Your task to perform on an android device: turn off javascript in the chrome app Image 0: 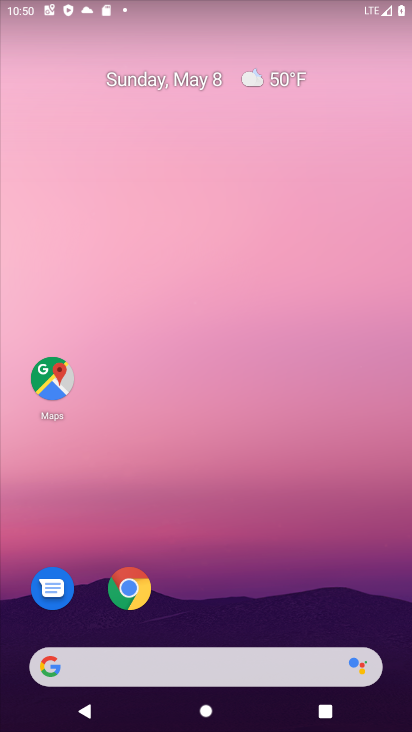
Step 0: drag from (271, 585) to (239, 79)
Your task to perform on an android device: turn off javascript in the chrome app Image 1: 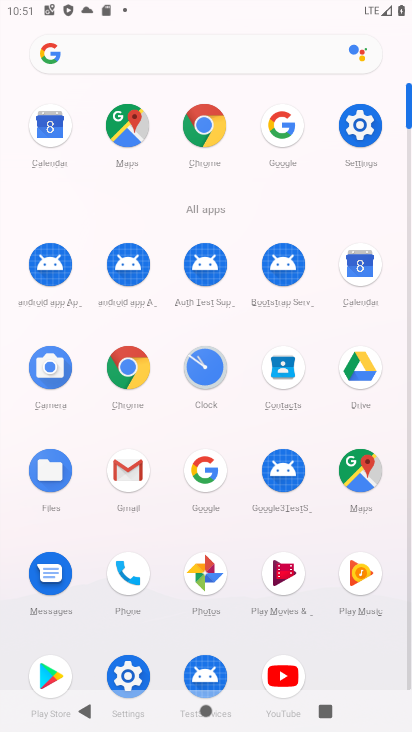
Step 1: click (209, 121)
Your task to perform on an android device: turn off javascript in the chrome app Image 2: 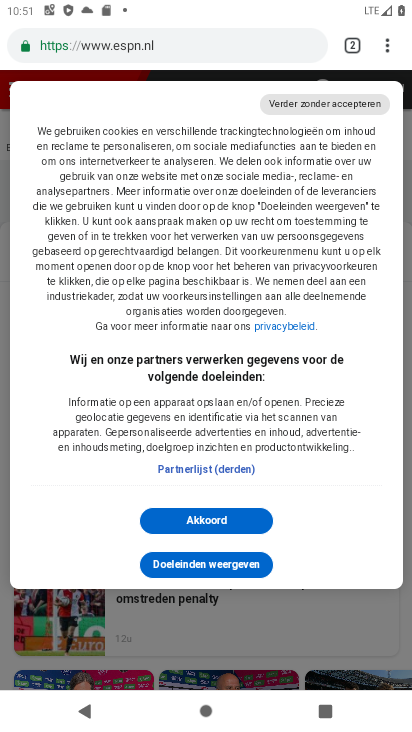
Step 2: click (389, 40)
Your task to perform on an android device: turn off javascript in the chrome app Image 3: 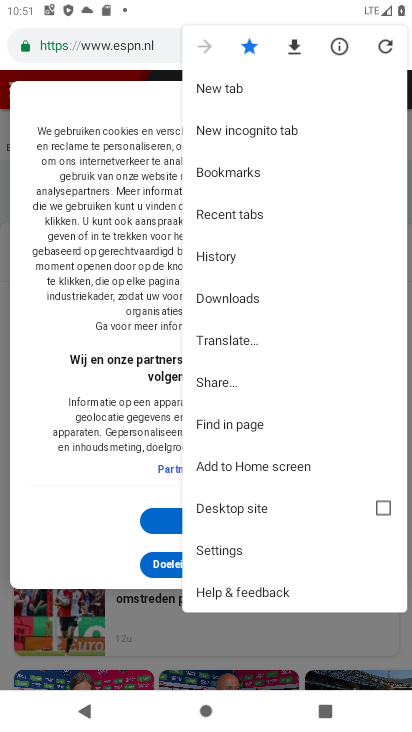
Step 3: click (236, 558)
Your task to perform on an android device: turn off javascript in the chrome app Image 4: 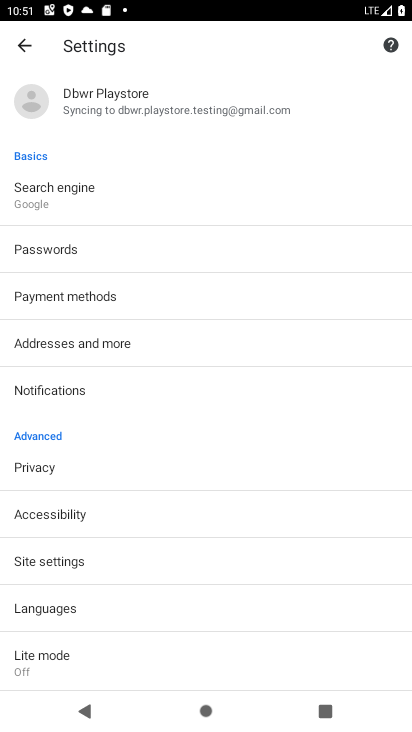
Step 4: click (85, 574)
Your task to perform on an android device: turn off javascript in the chrome app Image 5: 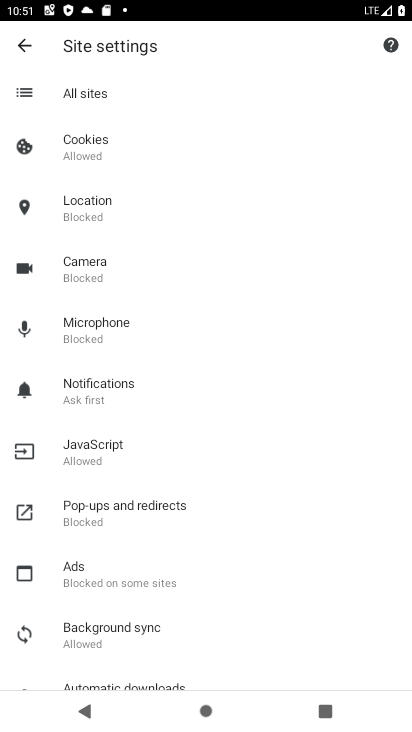
Step 5: click (135, 454)
Your task to perform on an android device: turn off javascript in the chrome app Image 6: 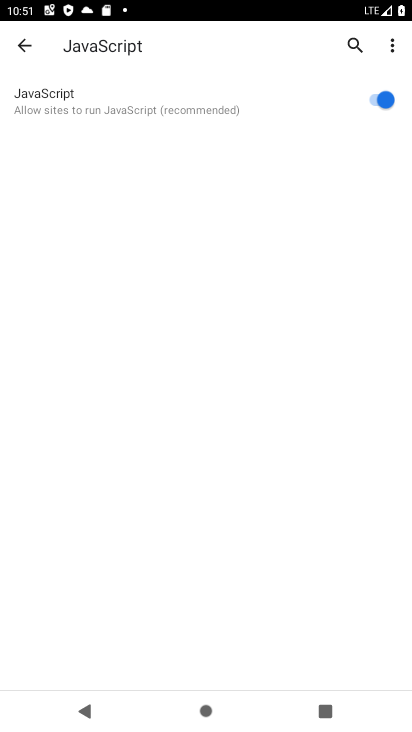
Step 6: click (385, 97)
Your task to perform on an android device: turn off javascript in the chrome app Image 7: 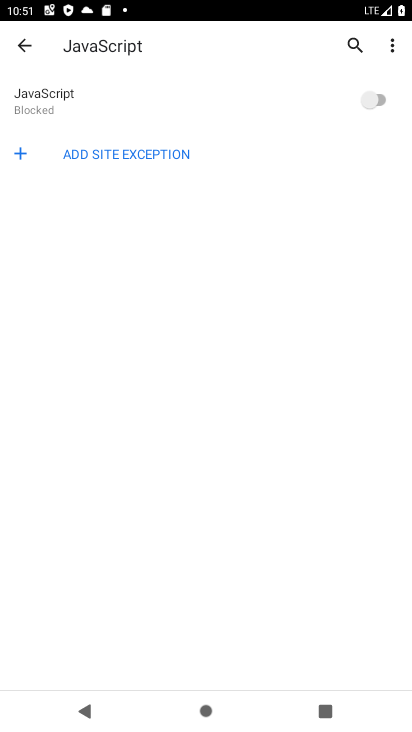
Step 7: task complete